Your task to perform on an android device: What's the weather going to be this weekend? Image 0: 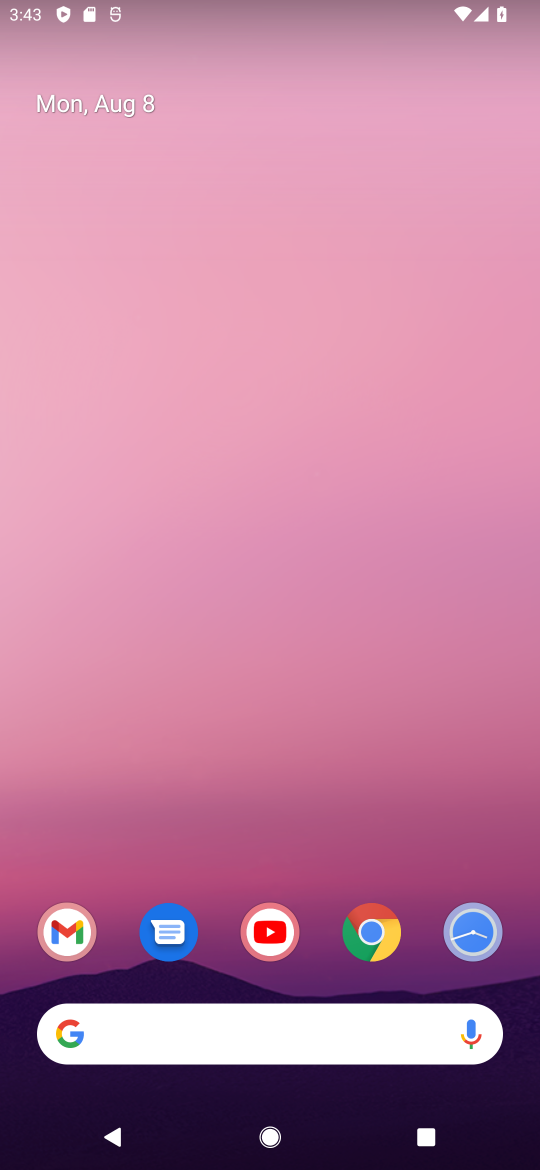
Step 0: click (190, 1020)
Your task to perform on an android device: What's the weather going to be this weekend? Image 1: 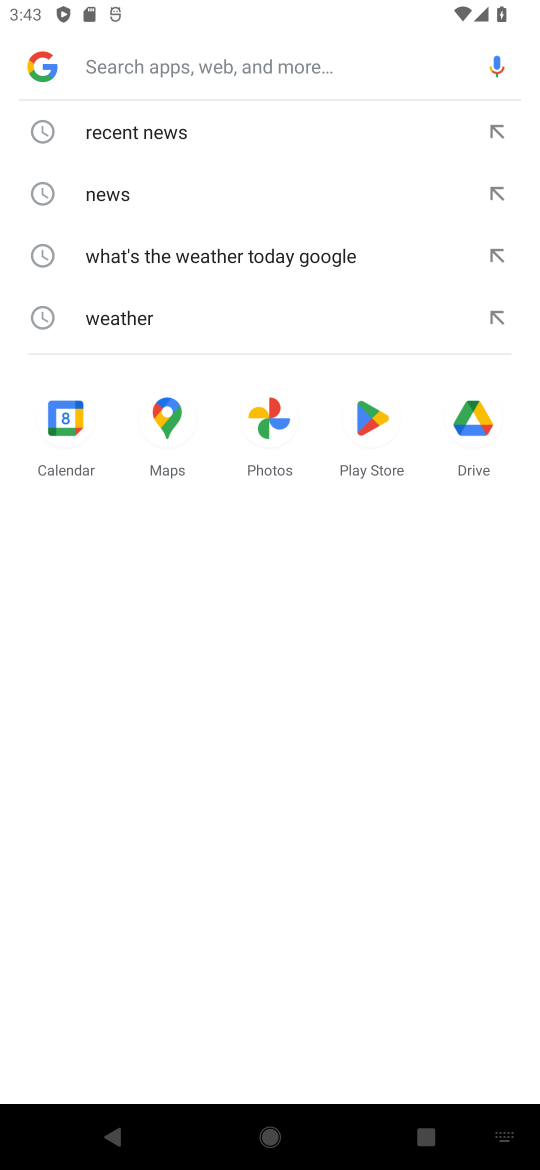
Step 1: type "What's the weather going to be this weekend?"
Your task to perform on an android device: What's the weather going to be this weekend? Image 2: 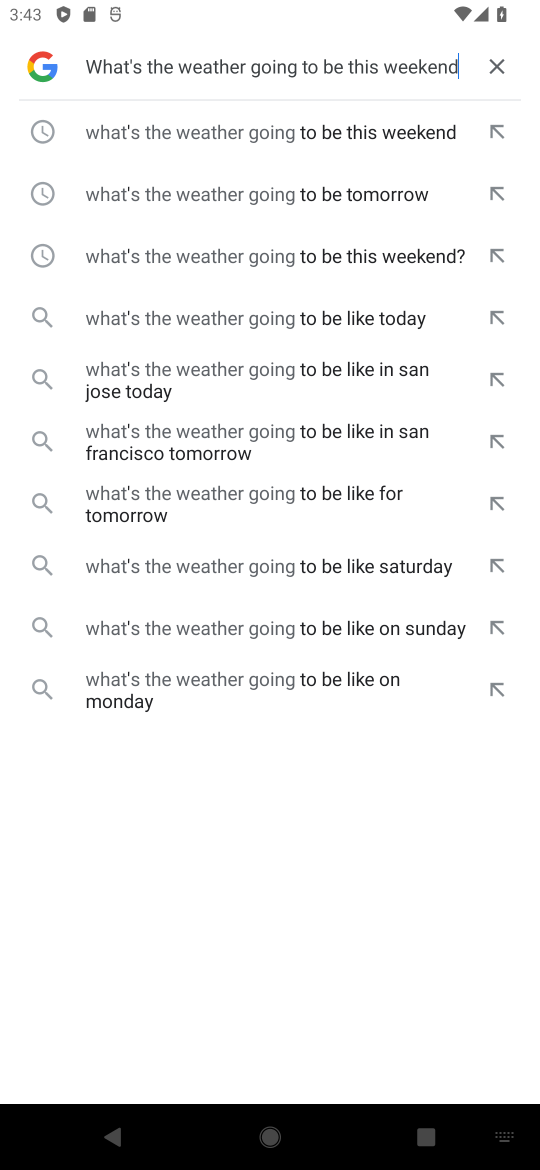
Step 2: type ""
Your task to perform on an android device: What's the weather going to be this weekend? Image 3: 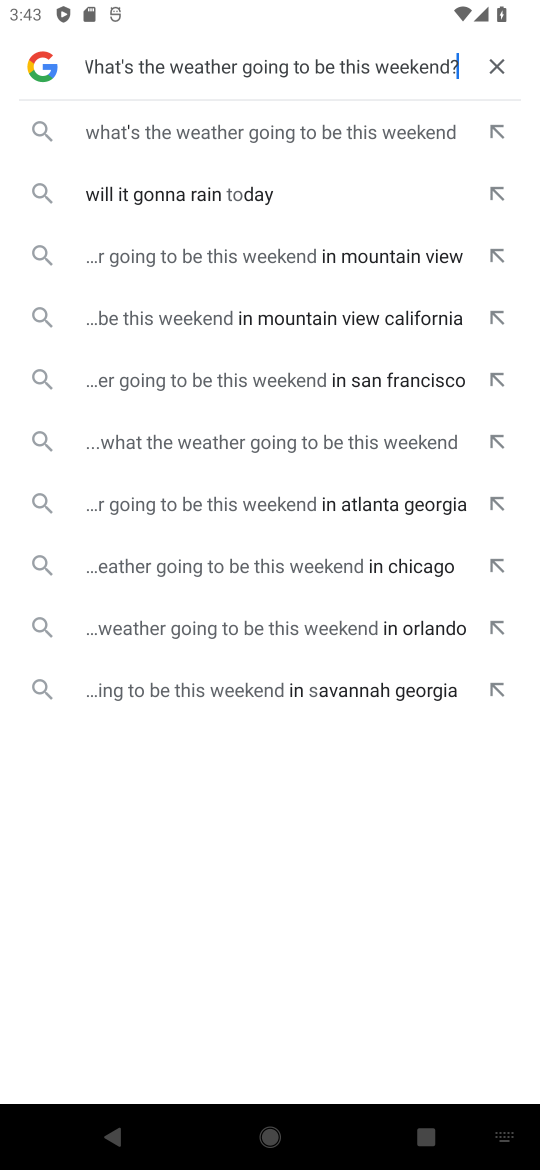
Step 3: type ""
Your task to perform on an android device: What's the weather going to be this weekend? Image 4: 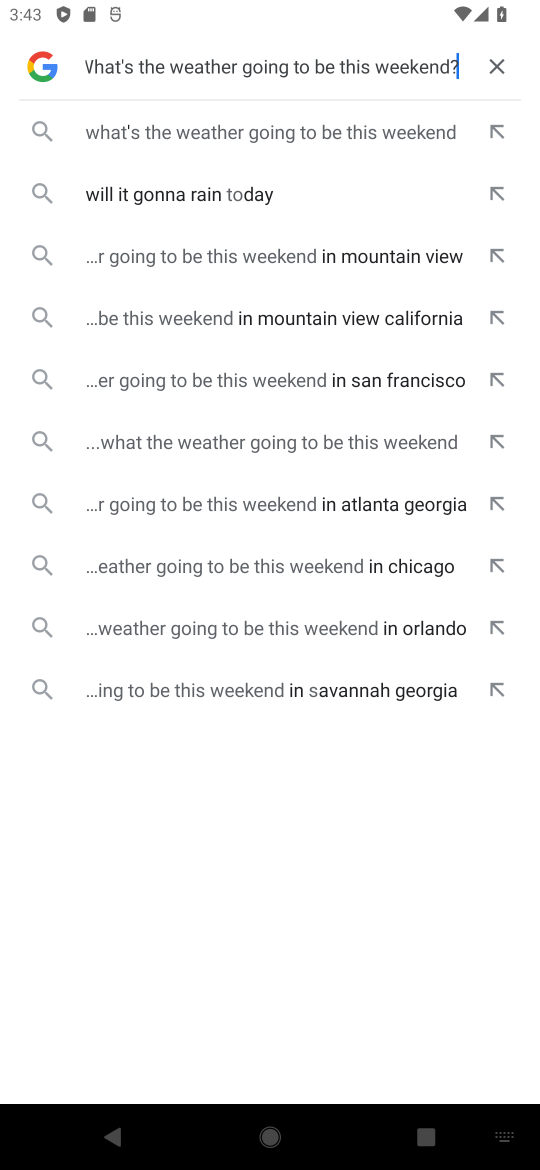
Step 4: type ""
Your task to perform on an android device: What's the weather going to be this weekend? Image 5: 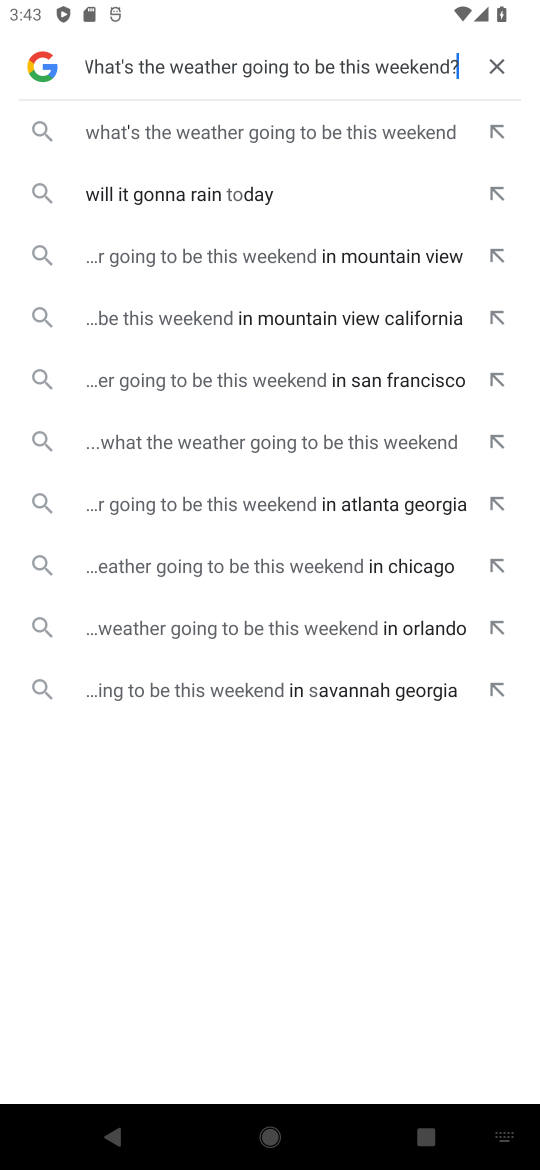
Step 5: click (323, 130)
Your task to perform on an android device: What's the weather going to be this weekend? Image 6: 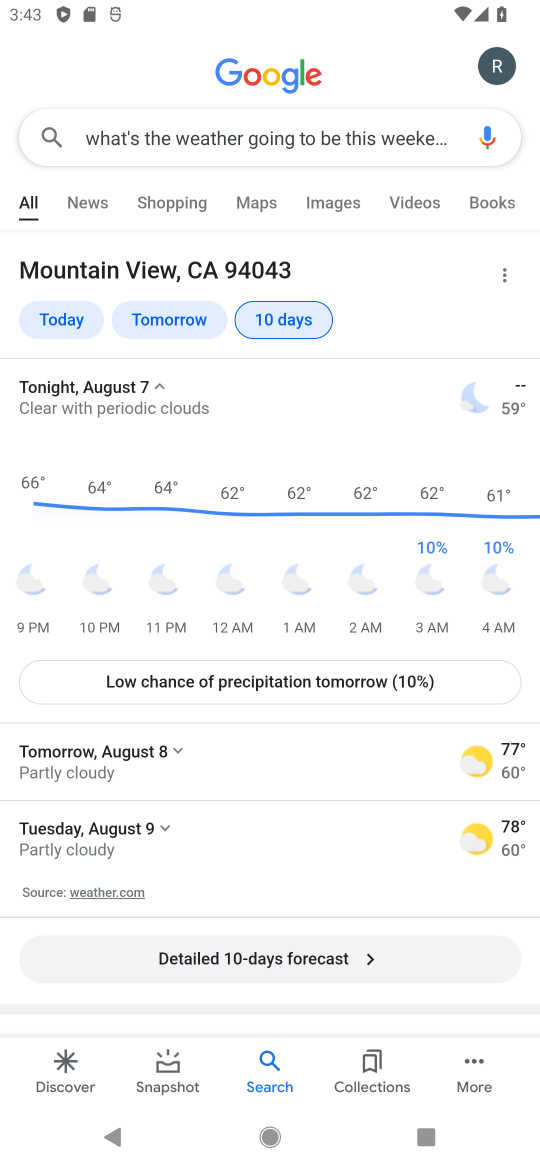
Step 6: task complete